Your task to perform on an android device: visit the assistant section in the google photos Image 0: 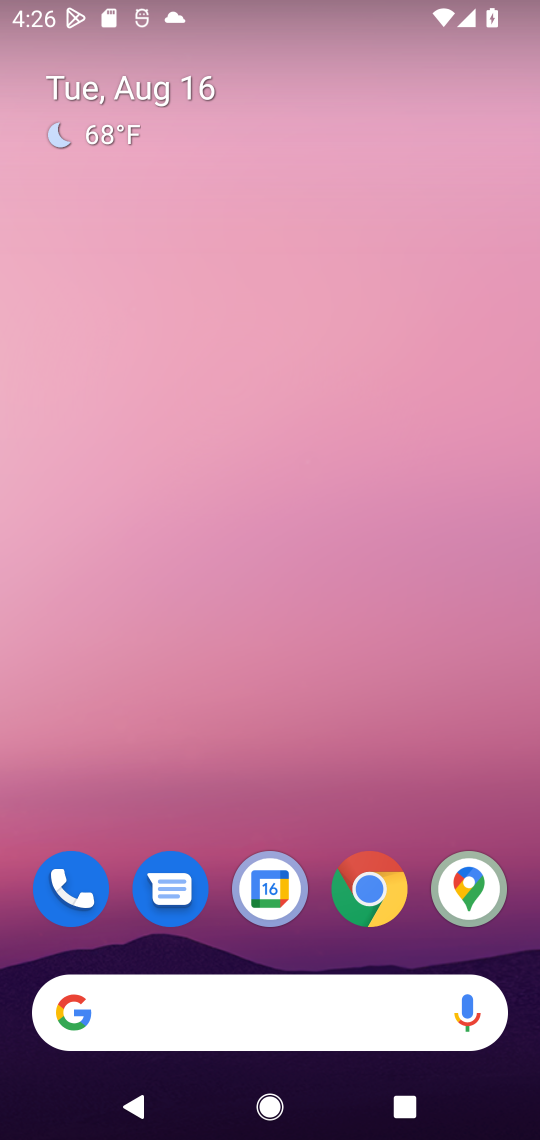
Step 0: drag from (266, 782) to (232, 17)
Your task to perform on an android device: visit the assistant section in the google photos Image 1: 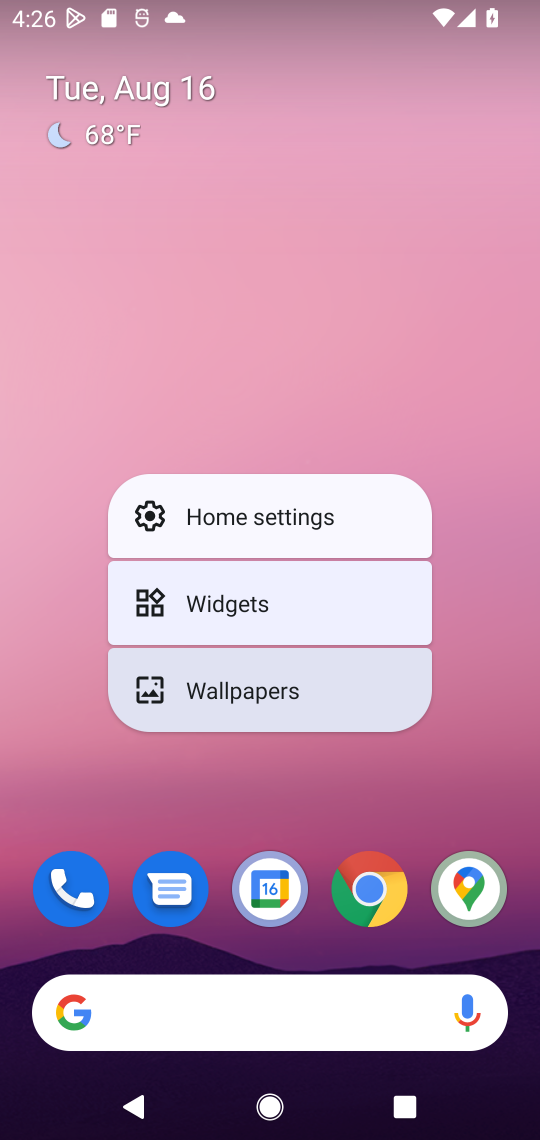
Step 1: click (287, 385)
Your task to perform on an android device: visit the assistant section in the google photos Image 2: 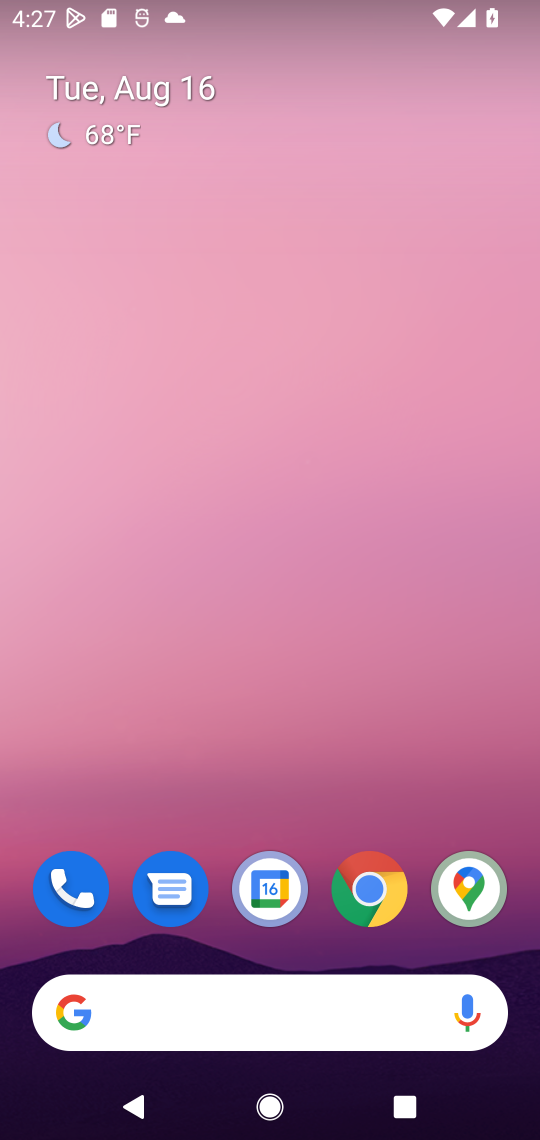
Step 2: drag from (205, 585) to (222, 205)
Your task to perform on an android device: visit the assistant section in the google photos Image 3: 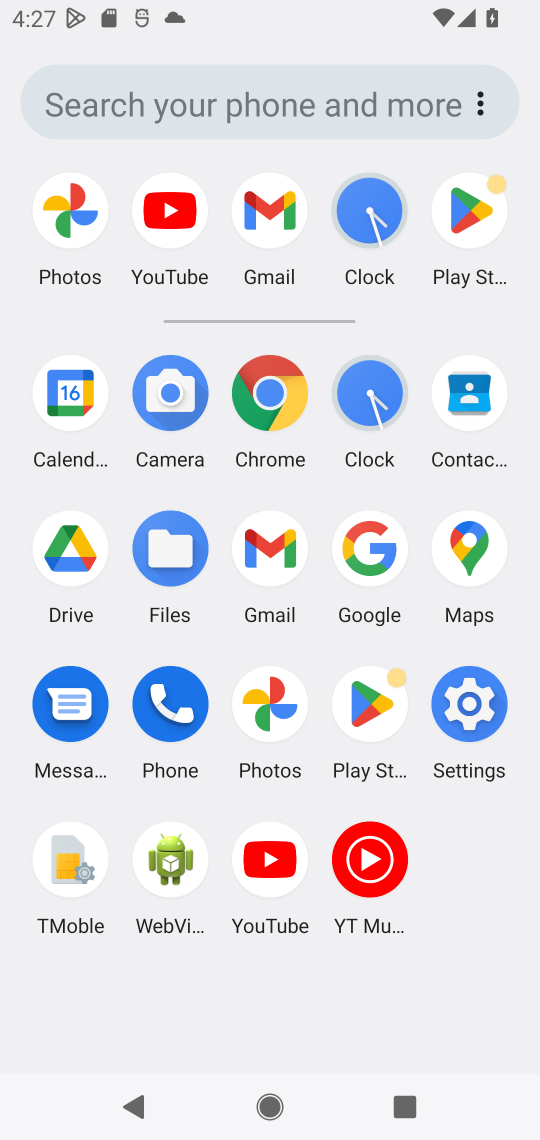
Step 3: click (275, 710)
Your task to perform on an android device: visit the assistant section in the google photos Image 4: 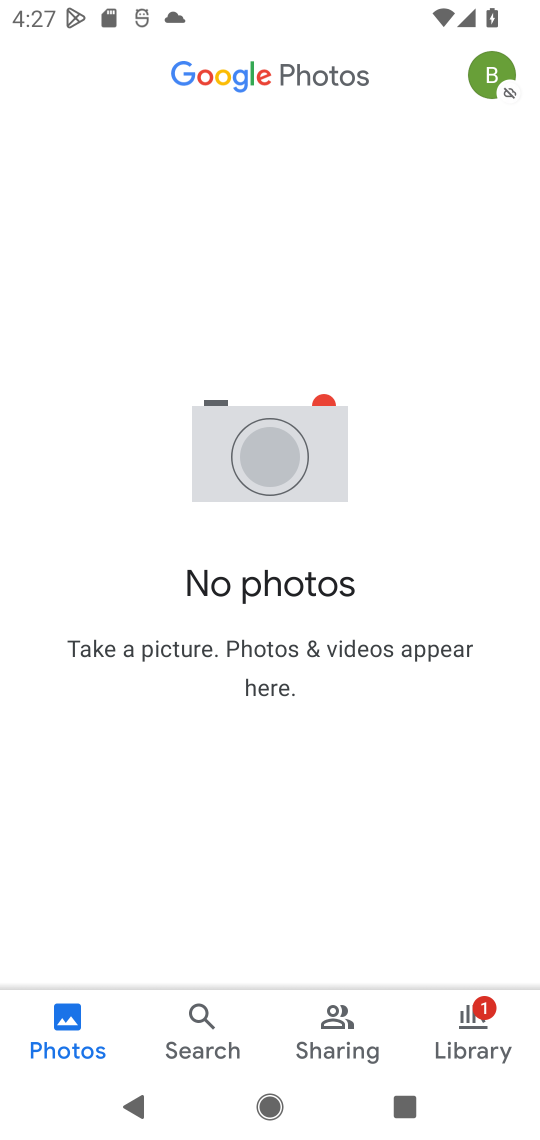
Step 4: task complete